Your task to perform on an android device: Search for sushi restaurants on Maps Image 0: 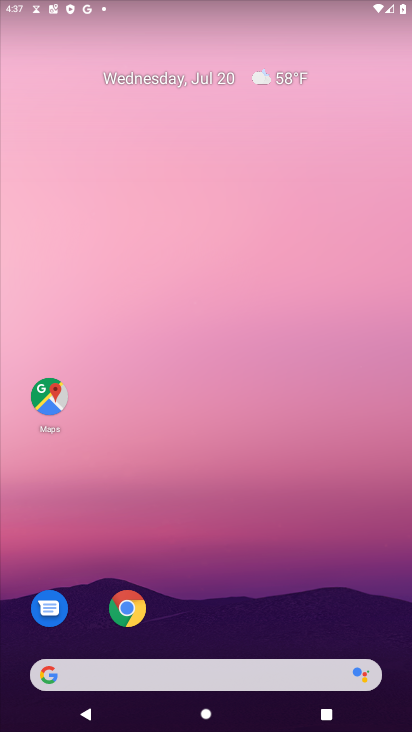
Step 0: drag from (178, 581) to (182, 188)
Your task to perform on an android device: Search for sushi restaurants on Maps Image 1: 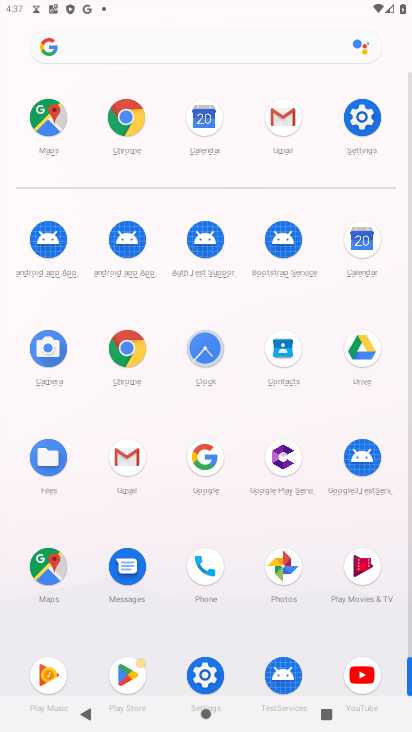
Step 1: click (48, 565)
Your task to perform on an android device: Search for sushi restaurants on Maps Image 2: 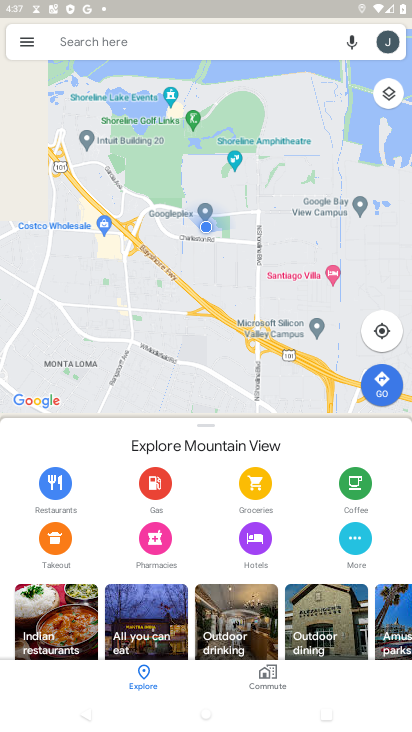
Step 2: click (160, 43)
Your task to perform on an android device: Search for sushi restaurants on Maps Image 3: 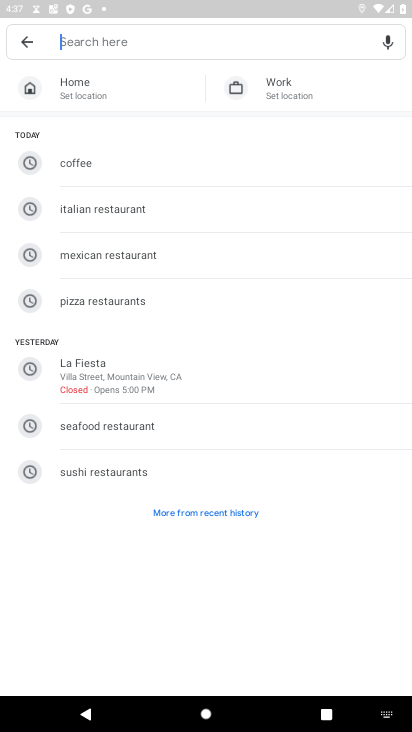
Step 3: type "sushi restaurants"
Your task to perform on an android device: Search for sushi restaurants on Maps Image 4: 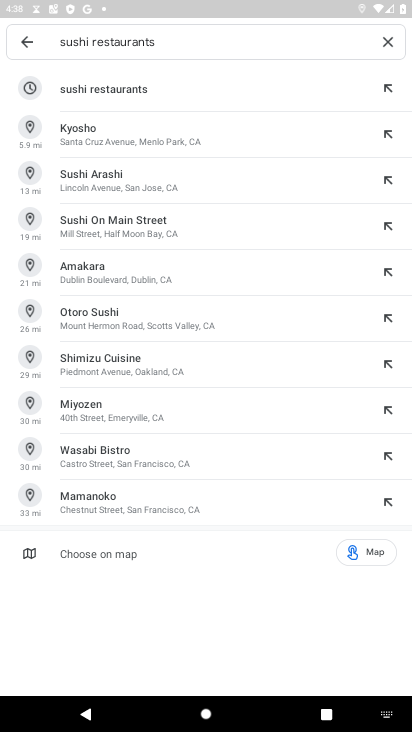
Step 4: click (154, 95)
Your task to perform on an android device: Search for sushi restaurants on Maps Image 5: 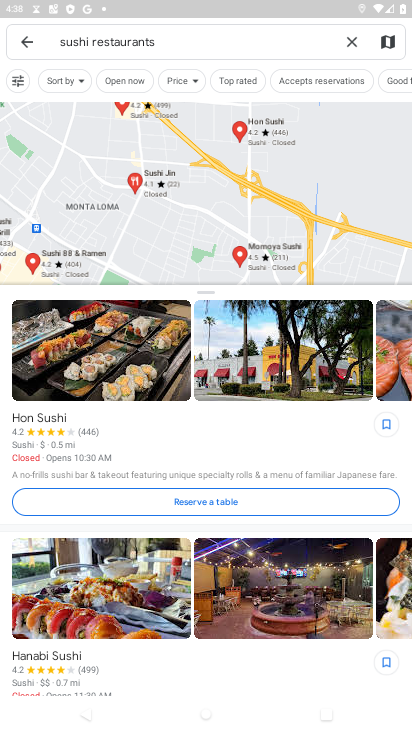
Step 5: task complete